Your task to perform on an android device: turn off smart reply in the gmail app Image 0: 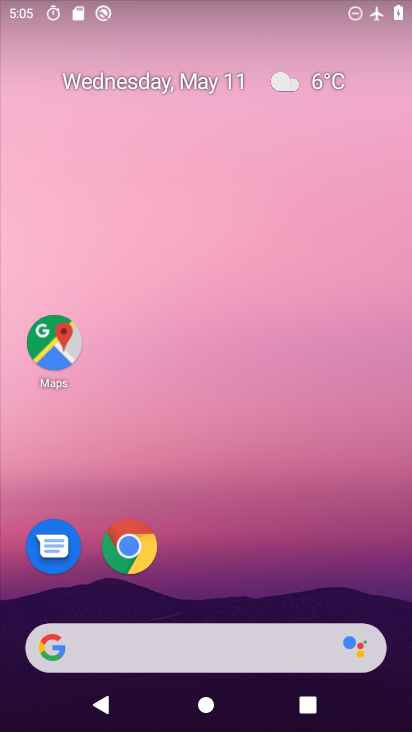
Step 0: drag from (192, 621) to (187, 351)
Your task to perform on an android device: turn off smart reply in the gmail app Image 1: 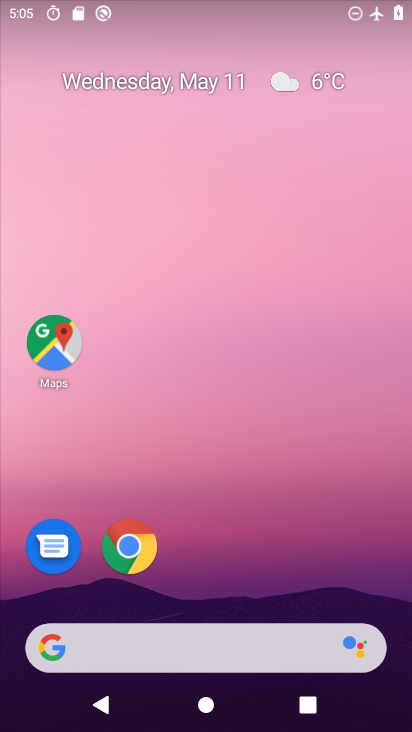
Step 1: drag from (166, 614) to (165, 206)
Your task to perform on an android device: turn off smart reply in the gmail app Image 2: 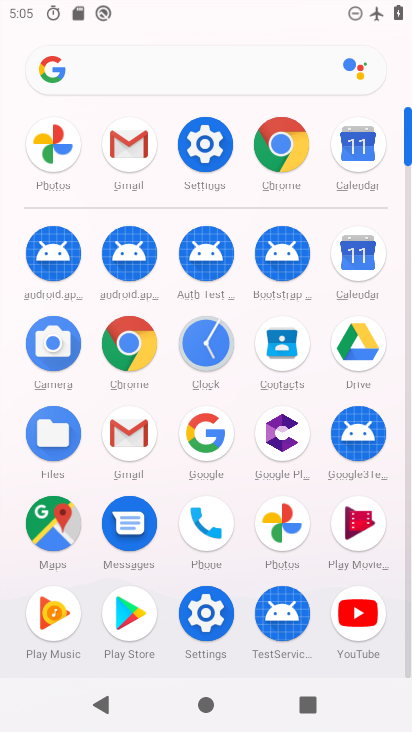
Step 2: click (126, 158)
Your task to perform on an android device: turn off smart reply in the gmail app Image 3: 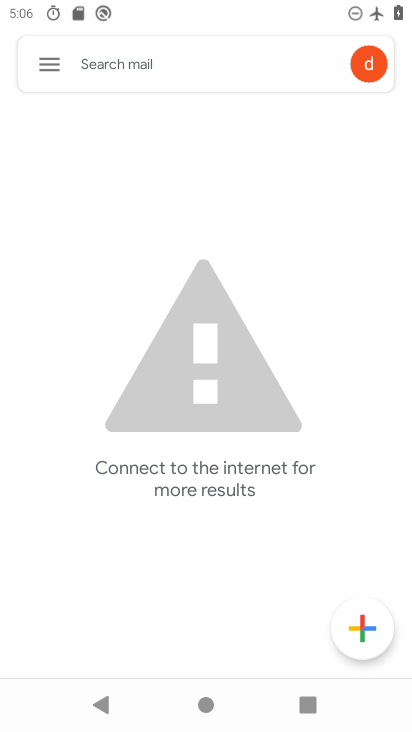
Step 3: click (62, 55)
Your task to perform on an android device: turn off smart reply in the gmail app Image 4: 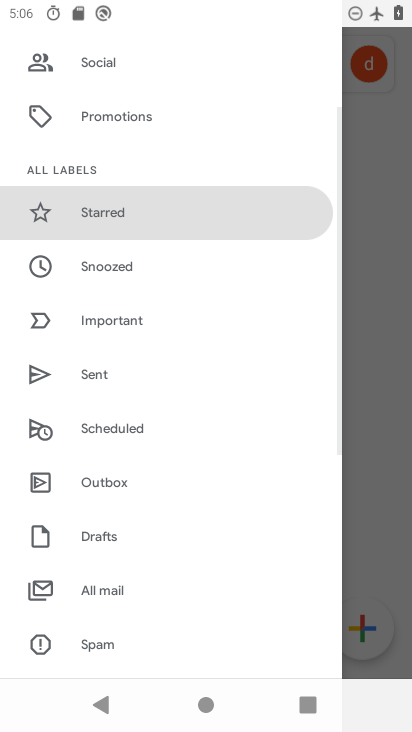
Step 4: drag from (123, 624) to (115, 310)
Your task to perform on an android device: turn off smart reply in the gmail app Image 5: 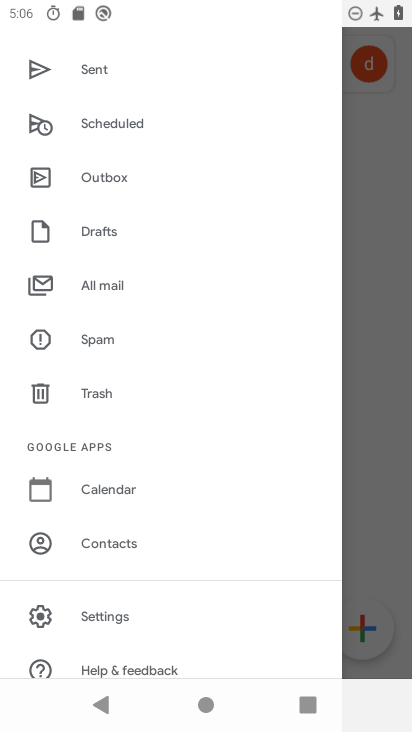
Step 5: click (105, 616)
Your task to perform on an android device: turn off smart reply in the gmail app Image 6: 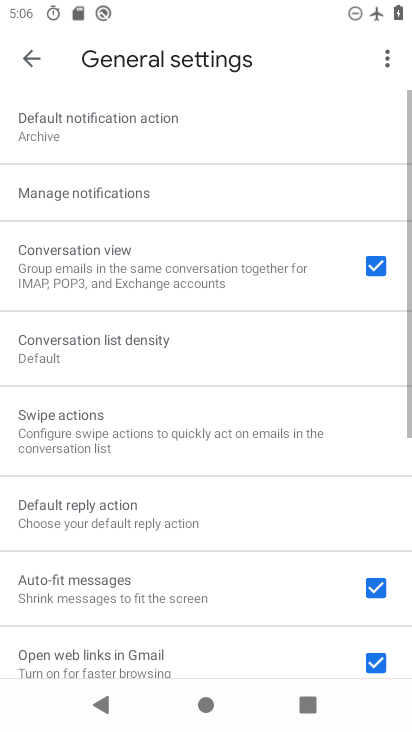
Step 6: drag from (136, 635) to (138, 387)
Your task to perform on an android device: turn off smart reply in the gmail app Image 7: 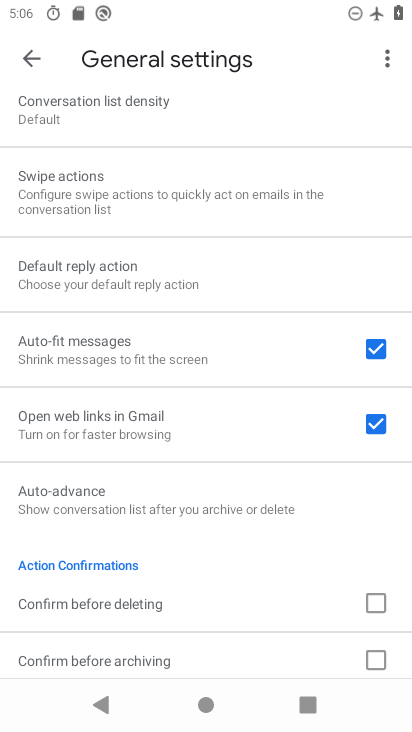
Step 7: click (24, 54)
Your task to perform on an android device: turn off smart reply in the gmail app Image 8: 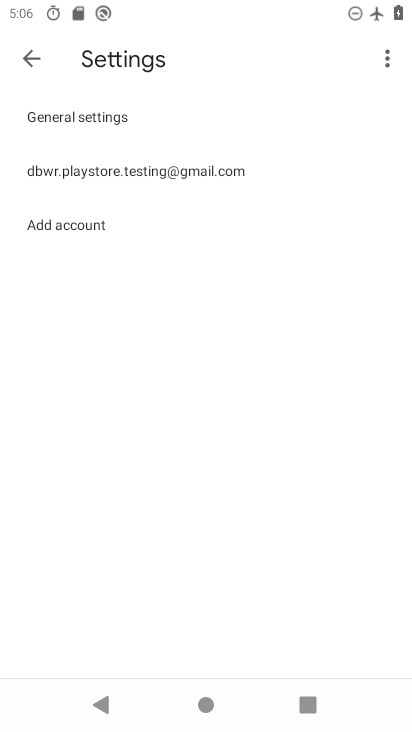
Step 8: click (107, 172)
Your task to perform on an android device: turn off smart reply in the gmail app Image 9: 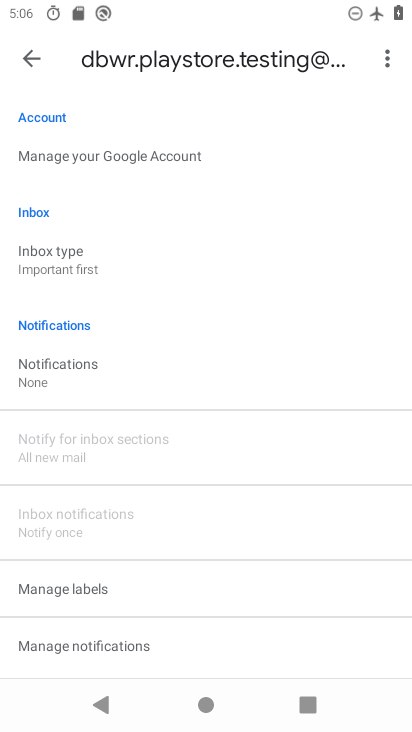
Step 9: drag from (140, 567) to (130, 257)
Your task to perform on an android device: turn off smart reply in the gmail app Image 10: 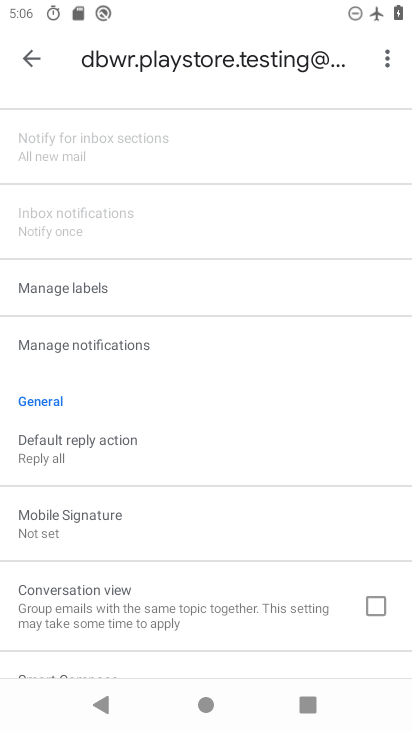
Step 10: drag from (116, 579) to (110, 277)
Your task to perform on an android device: turn off smart reply in the gmail app Image 11: 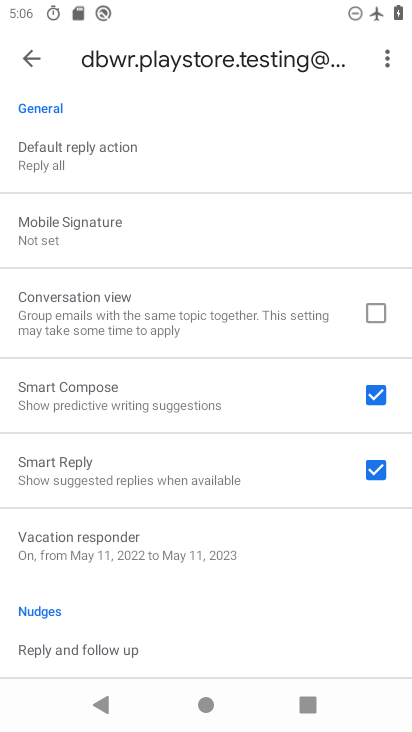
Step 11: click (368, 464)
Your task to perform on an android device: turn off smart reply in the gmail app Image 12: 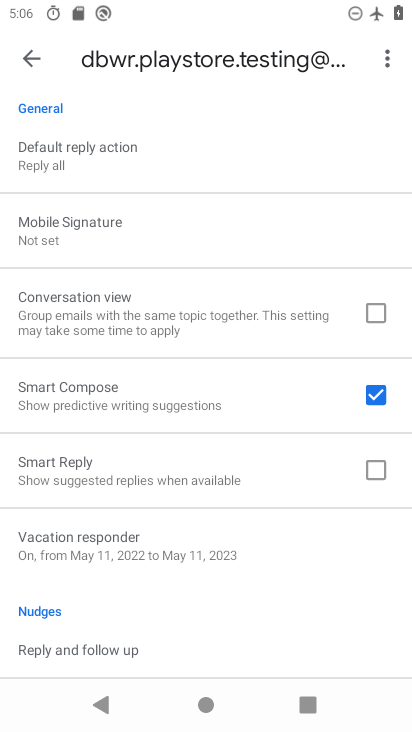
Step 12: task complete